Your task to perform on an android device: toggle location history Image 0: 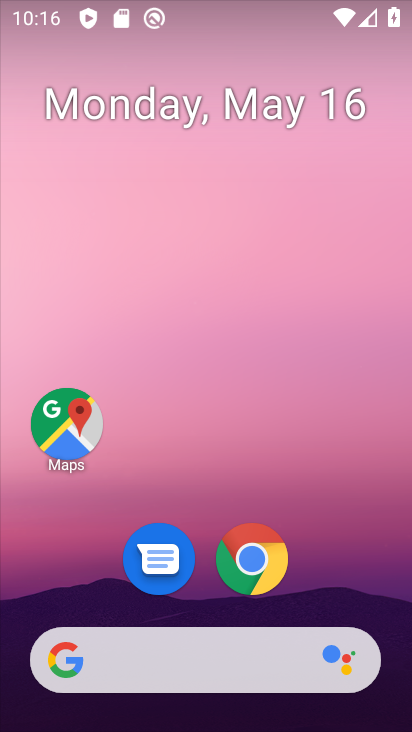
Step 0: drag from (328, 510) to (267, 22)
Your task to perform on an android device: toggle location history Image 1: 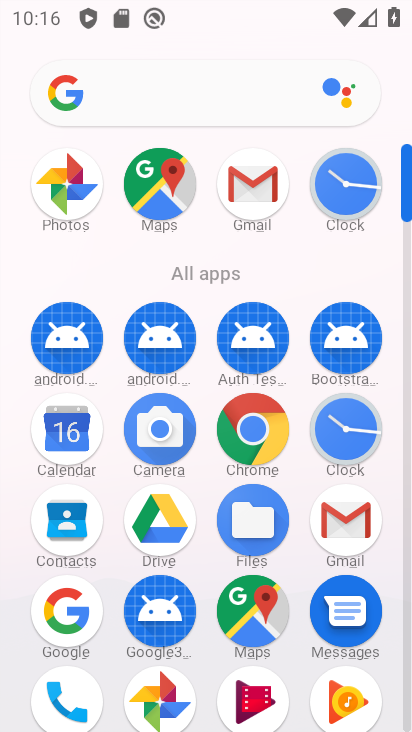
Step 1: drag from (8, 602) to (5, 230)
Your task to perform on an android device: toggle location history Image 2: 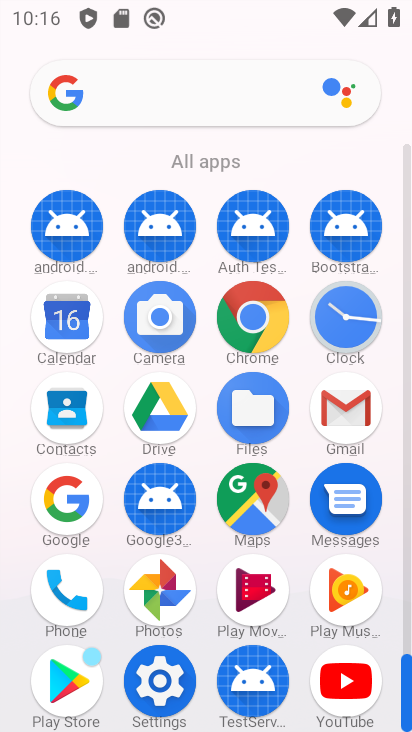
Step 2: click (156, 681)
Your task to perform on an android device: toggle location history Image 3: 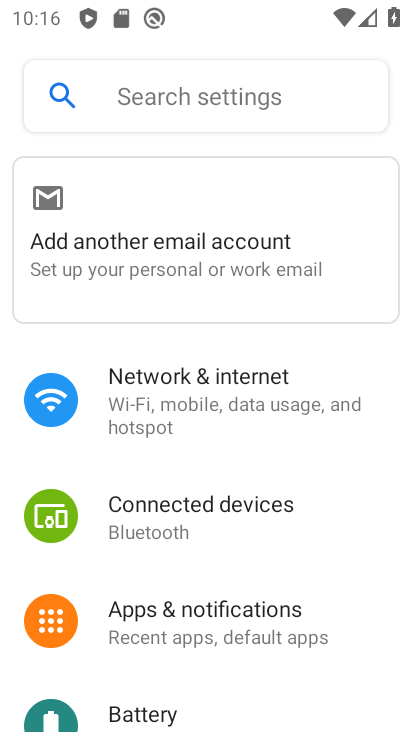
Step 3: drag from (301, 600) to (299, 177)
Your task to perform on an android device: toggle location history Image 4: 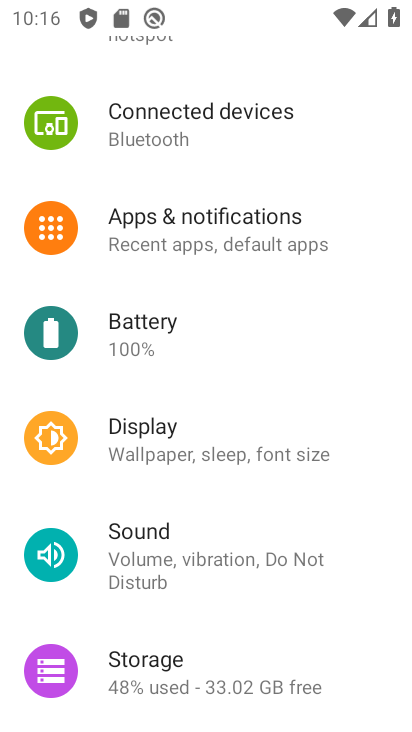
Step 4: drag from (283, 553) to (287, 150)
Your task to perform on an android device: toggle location history Image 5: 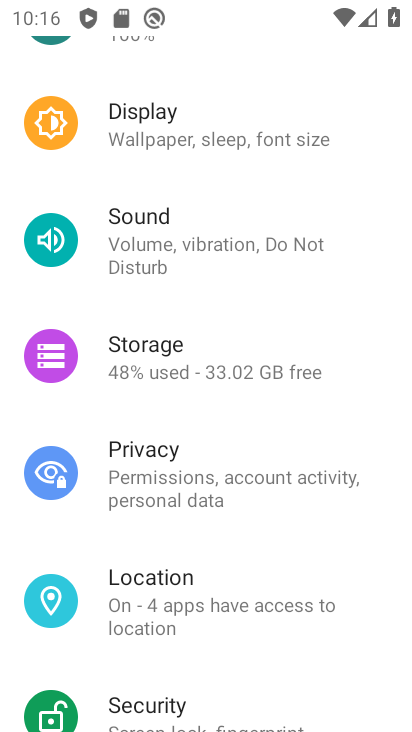
Step 5: drag from (252, 626) to (253, 227)
Your task to perform on an android device: toggle location history Image 6: 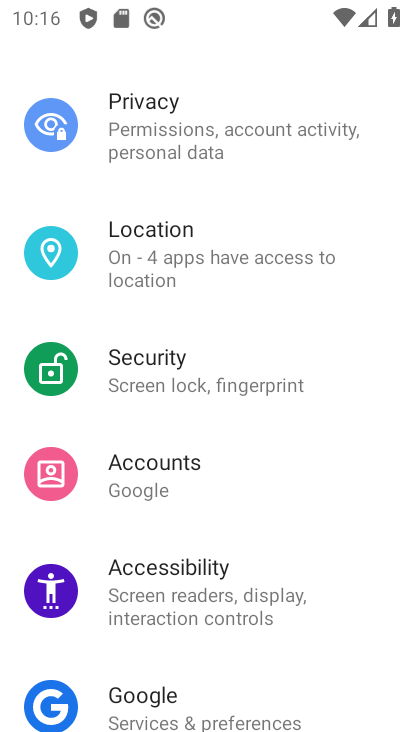
Step 6: click (231, 236)
Your task to perform on an android device: toggle location history Image 7: 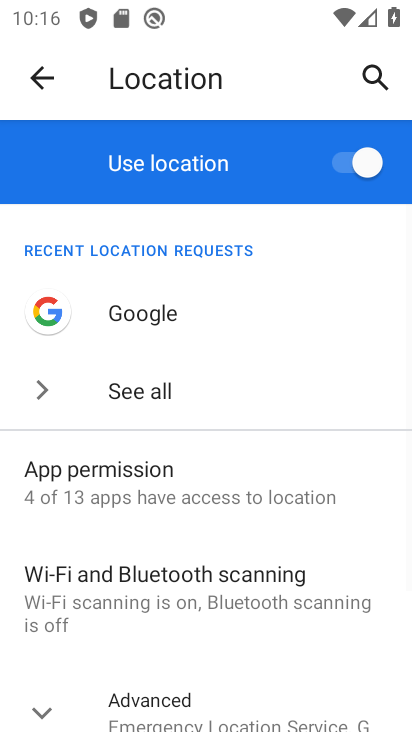
Step 7: click (40, 704)
Your task to perform on an android device: toggle location history Image 8: 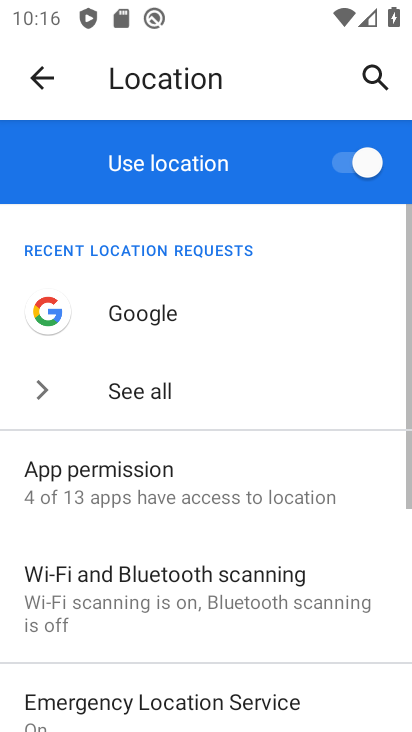
Step 8: drag from (256, 632) to (255, 195)
Your task to perform on an android device: toggle location history Image 9: 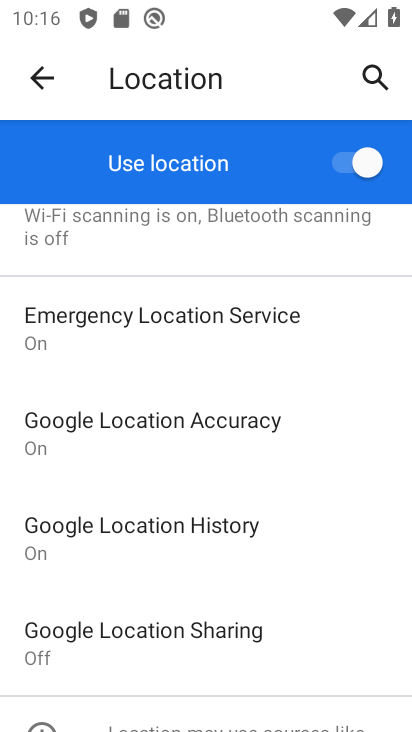
Step 9: drag from (245, 654) to (267, 280)
Your task to perform on an android device: toggle location history Image 10: 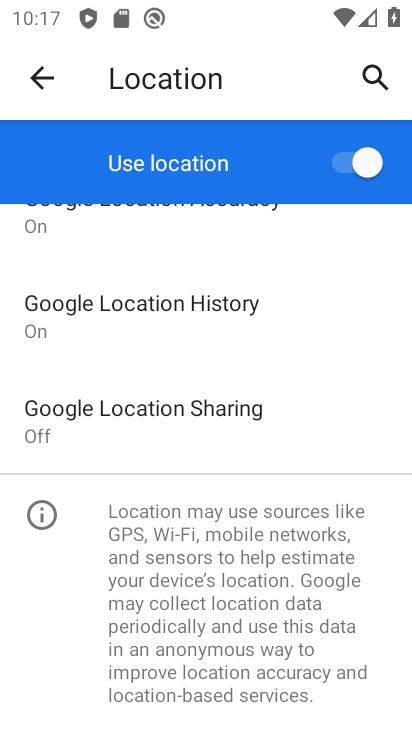
Step 10: click (196, 306)
Your task to perform on an android device: toggle location history Image 11: 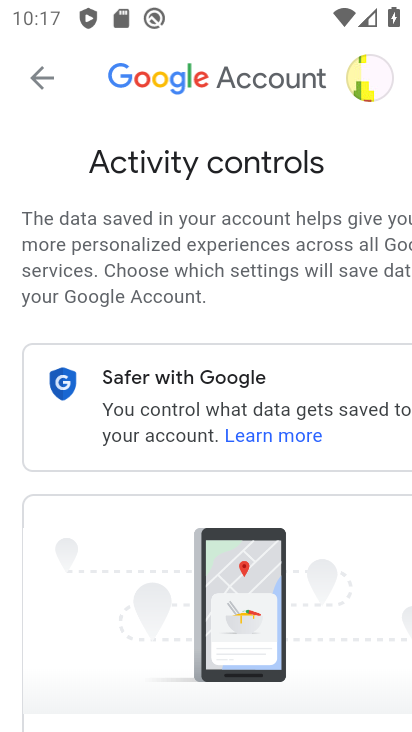
Step 11: drag from (165, 522) to (105, 148)
Your task to perform on an android device: toggle location history Image 12: 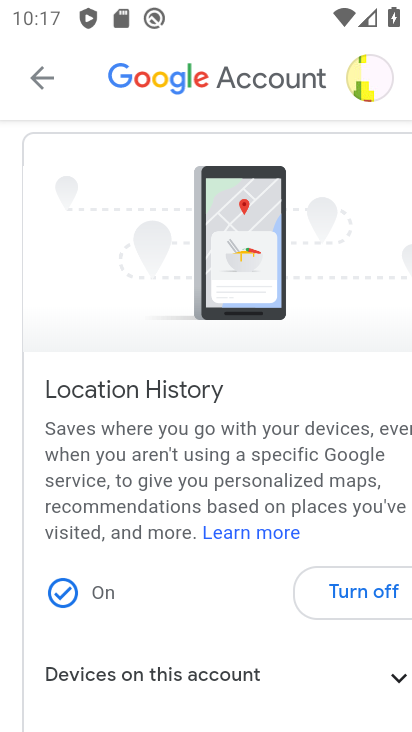
Step 12: drag from (156, 520) to (72, 190)
Your task to perform on an android device: toggle location history Image 13: 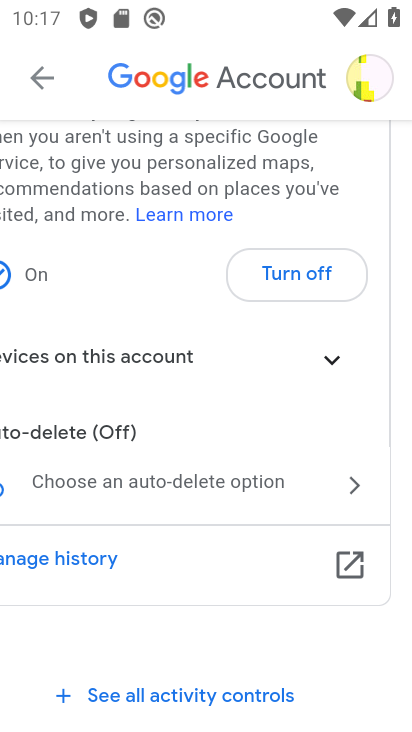
Step 13: click (285, 275)
Your task to perform on an android device: toggle location history Image 14: 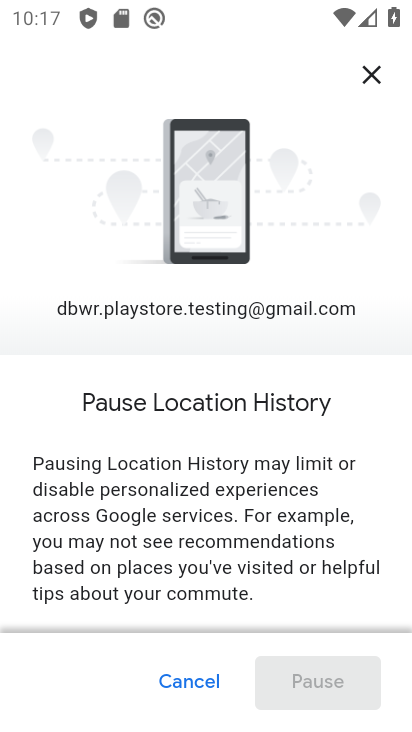
Step 14: drag from (290, 572) to (285, 155)
Your task to perform on an android device: toggle location history Image 15: 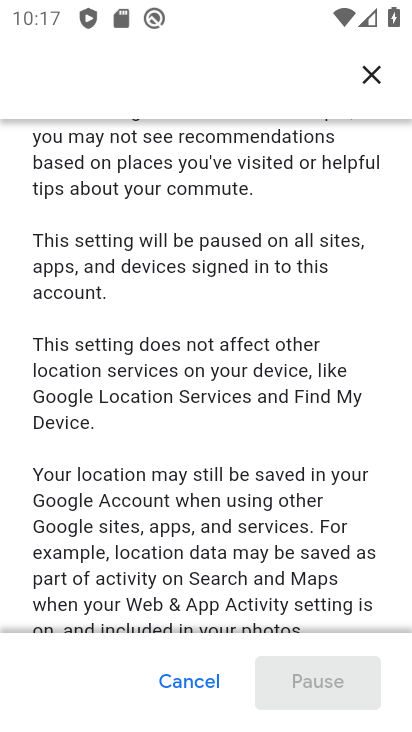
Step 15: drag from (207, 528) to (207, 155)
Your task to perform on an android device: toggle location history Image 16: 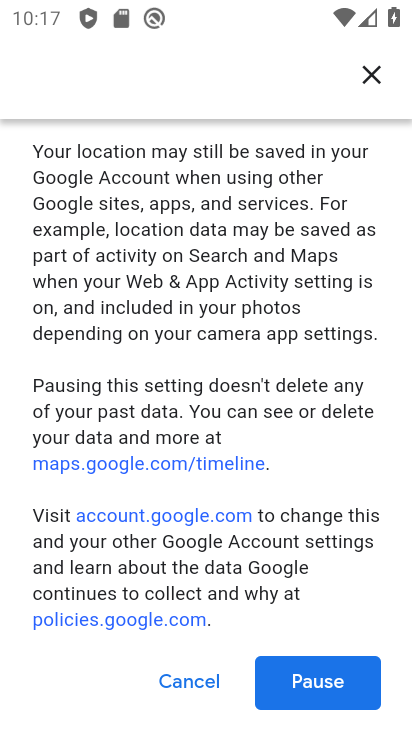
Step 16: click (289, 688)
Your task to perform on an android device: toggle location history Image 17: 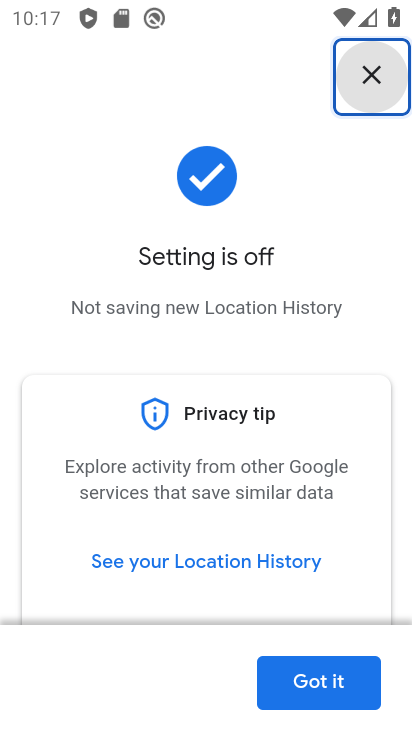
Step 17: task complete